Your task to perform on an android device: check google app version Image 0: 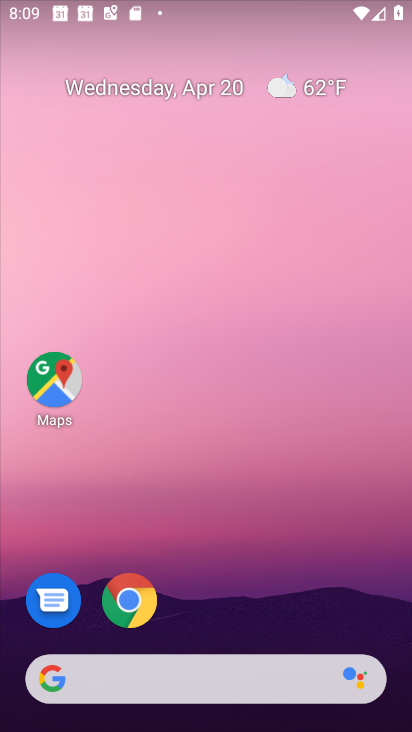
Step 0: drag from (230, 573) to (219, 13)
Your task to perform on an android device: check google app version Image 1: 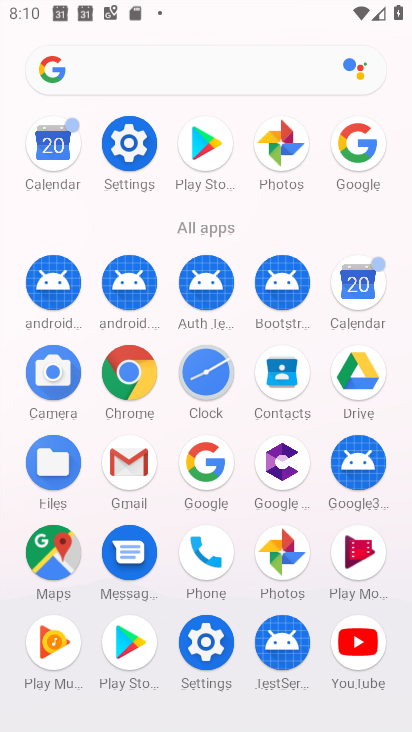
Step 1: click (208, 459)
Your task to perform on an android device: check google app version Image 2: 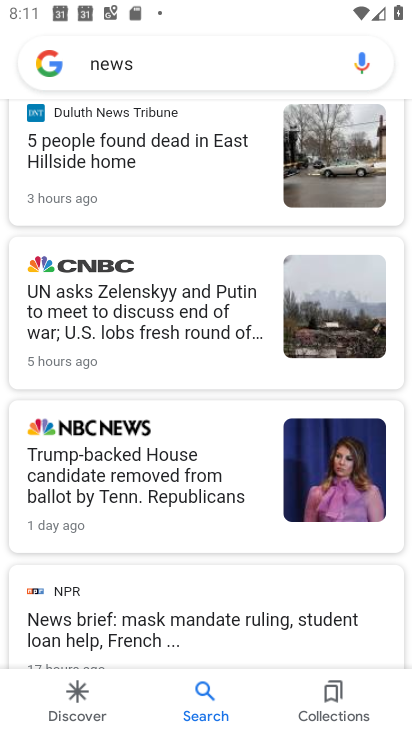
Step 2: click (44, 75)
Your task to perform on an android device: check google app version Image 3: 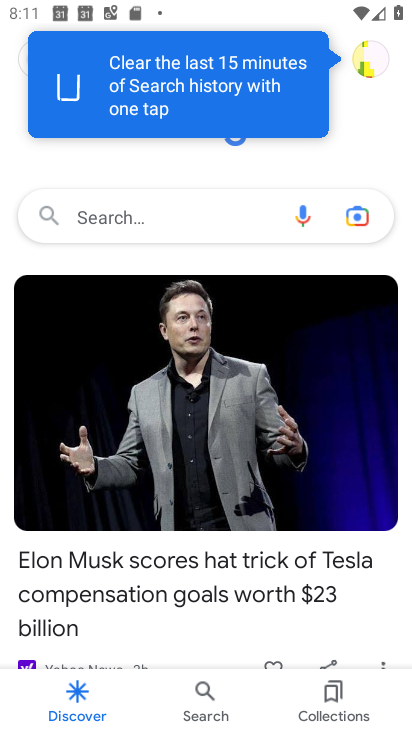
Step 3: click (357, 43)
Your task to perform on an android device: check google app version Image 4: 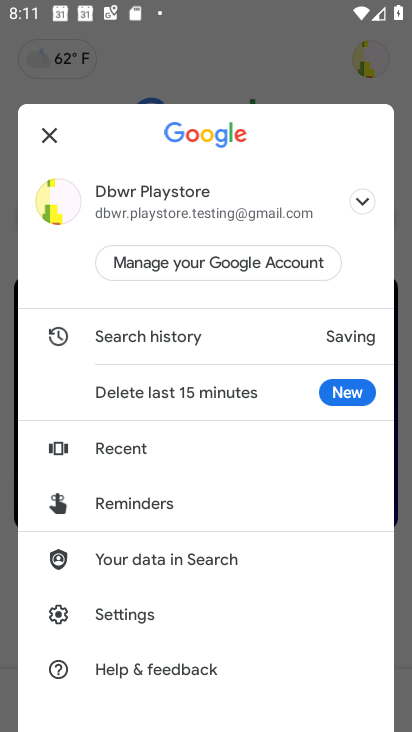
Step 4: click (150, 618)
Your task to perform on an android device: check google app version Image 5: 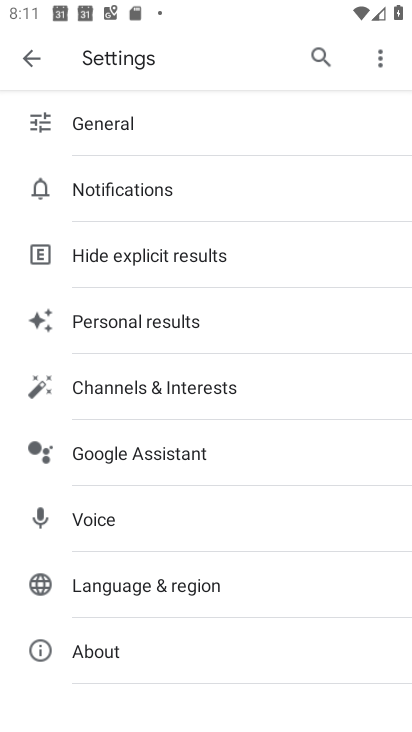
Step 5: click (138, 642)
Your task to perform on an android device: check google app version Image 6: 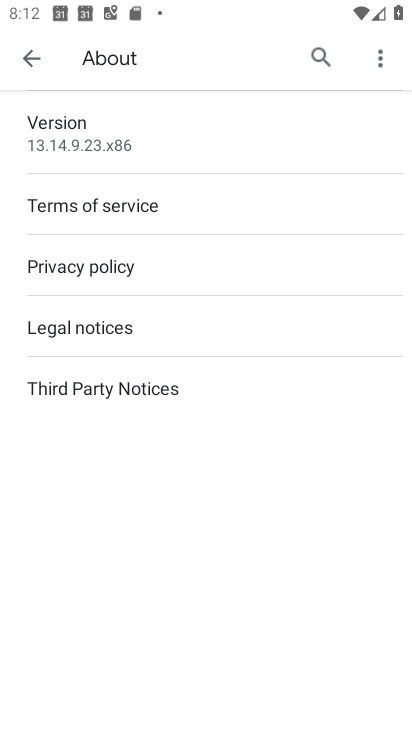
Step 6: task complete